Your task to perform on an android device: Open Amazon Image 0: 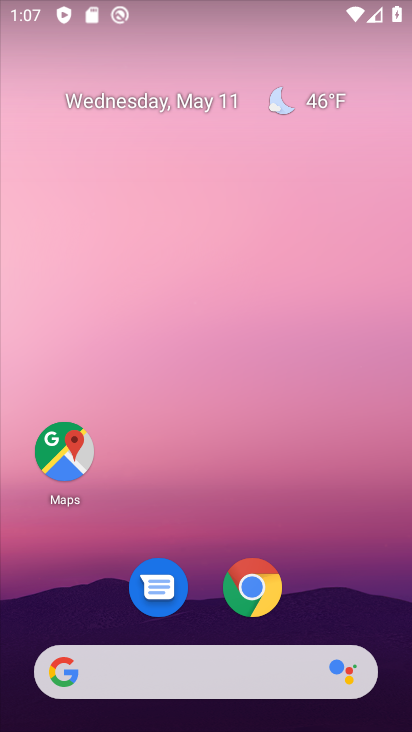
Step 0: click (243, 596)
Your task to perform on an android device: Open Amazon Image 1: 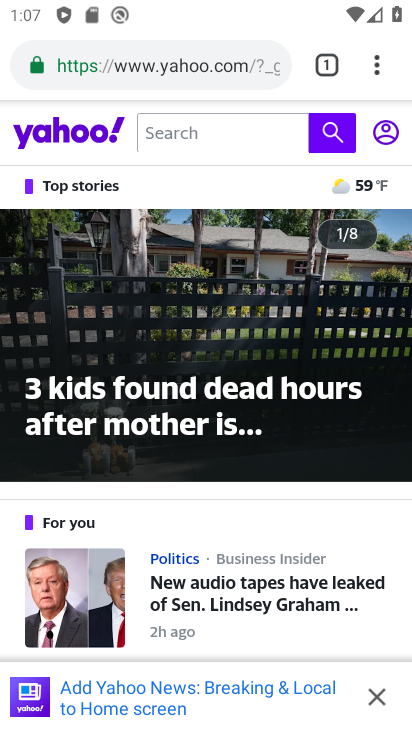
Step 1: click (130, 60)
Your task to perform on an android device: Open Amazon Image 2: 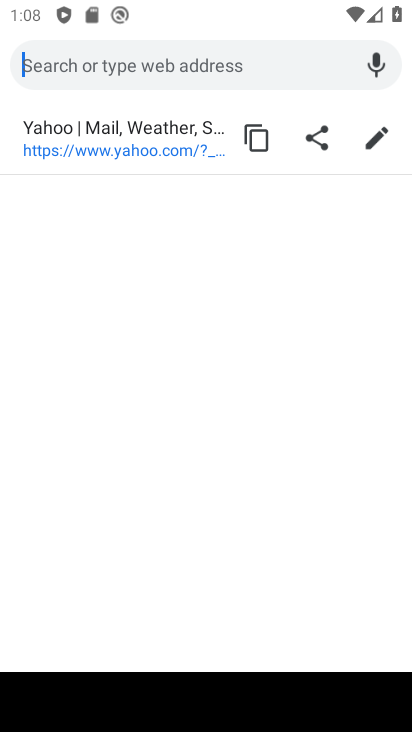
Step 2: click (180, 68)
Your task to perform on an android device: Open Amazon Image 3: 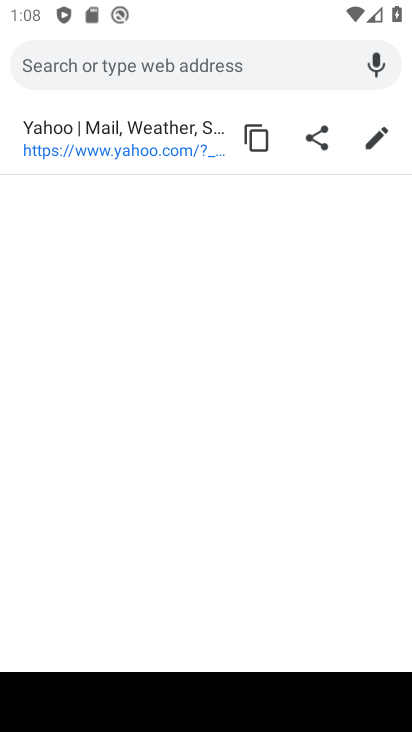
Step 3: type "Amazon"
Your task to perform on an android device: Open Amazon Image 4: 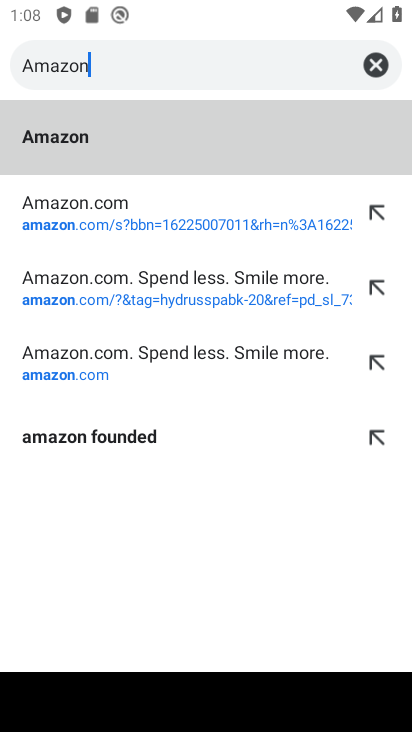
Step 4: click (150, 212)
Your task to perform on an android device: Open Amazon Image 5: 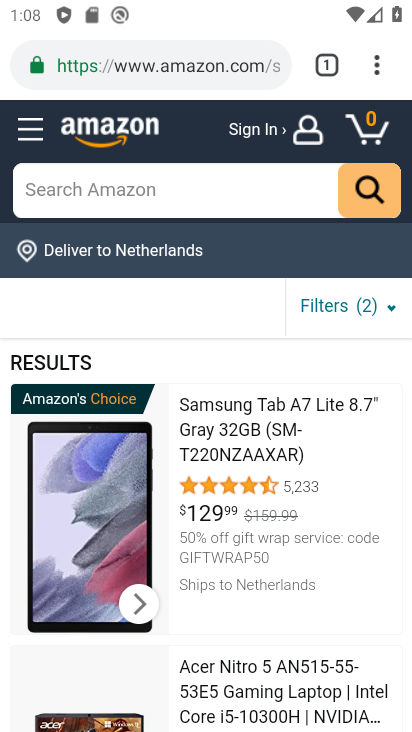
Step 5: task complete